Your task to perform on an android device: Is it going to rain this weekend? Image 0: 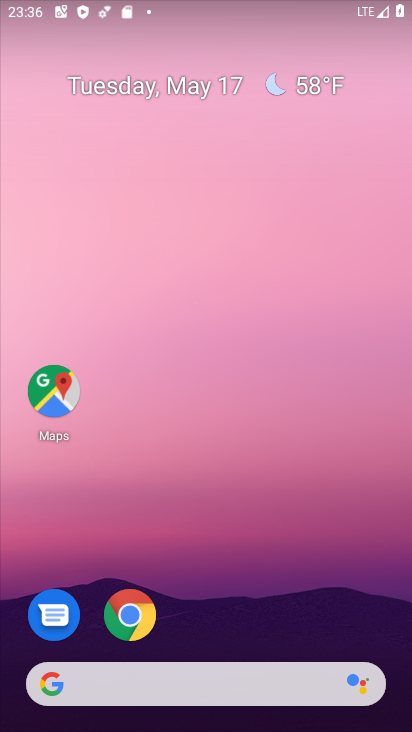
Step 0: drag from (237, 629) to (236, 242)
Your task to perform on an android device: Is it going to rain this weekend? Image 1: 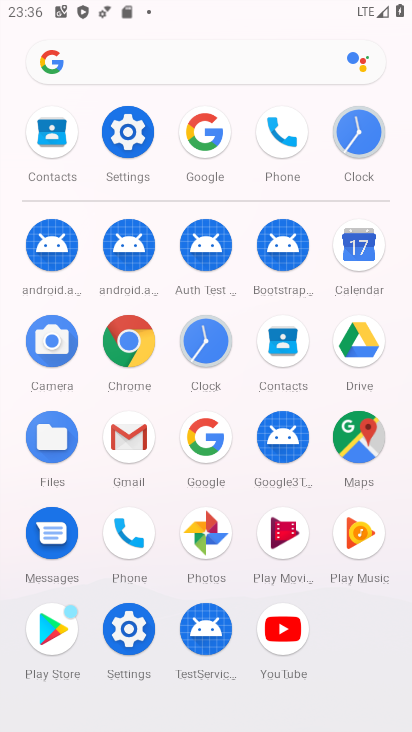
Step 1: click (194, 430)
Your task to perform on an android device: Is it going to rain this weekend? Image 2: 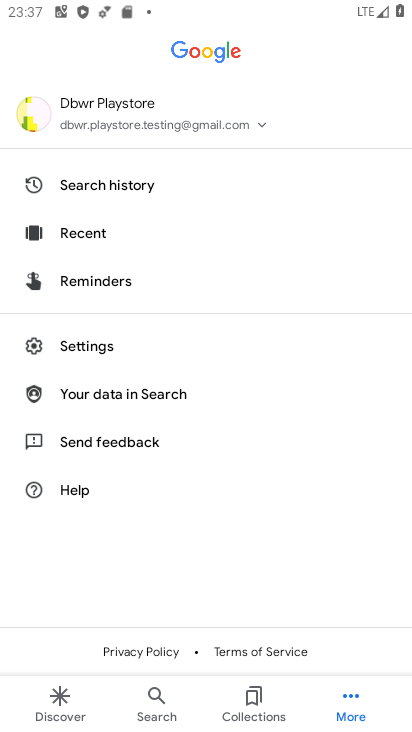
Step 2: press back button
Your task to perform on an android device: Is it going to rain this weekend? Image 3: 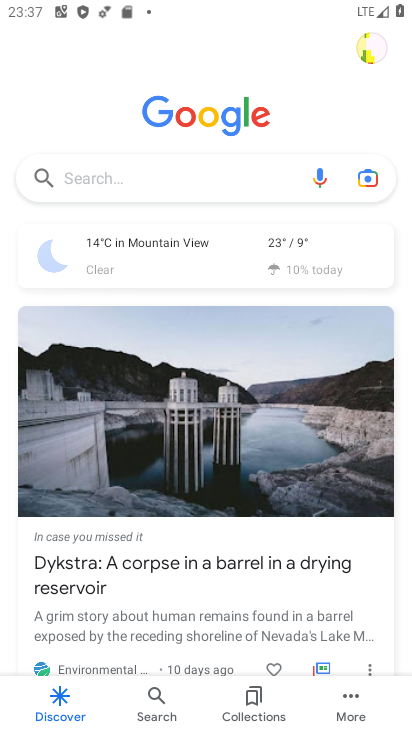
Step 3: click (136, 250)
Your task to perform on an android device: Is it going to rain this weekend? Image 4: 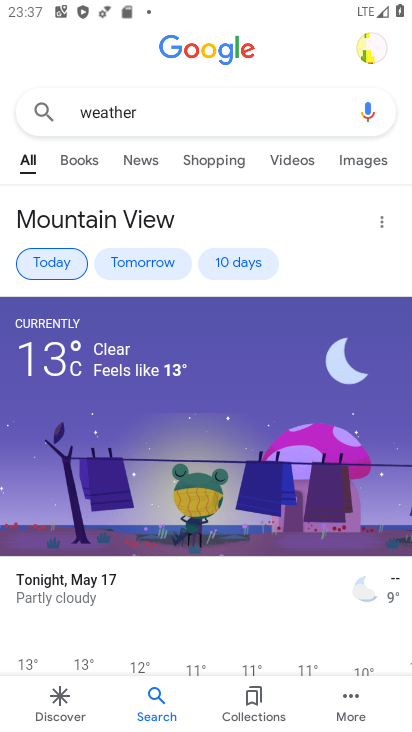
Step 4: click (231, 258)
Your task to perform on an android device: Is it going to rain this weekend? Image 5: 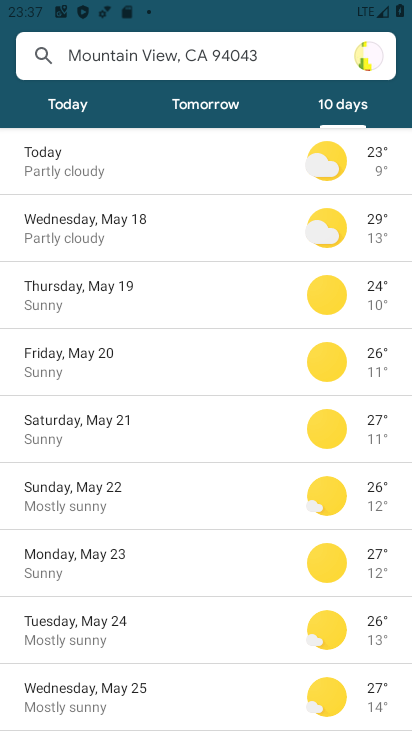
Step 5: task complete